Your task to perform on an android device: toggle airplane mode Image 0: 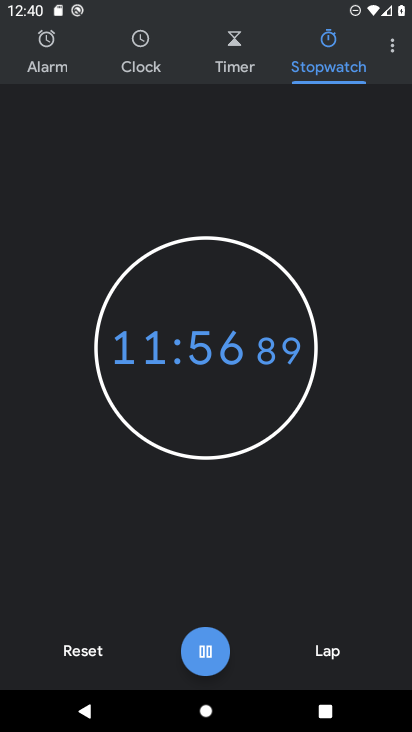
Step 0: press home button
Your task to perform on an android device: toggle airplane mode Image 1: 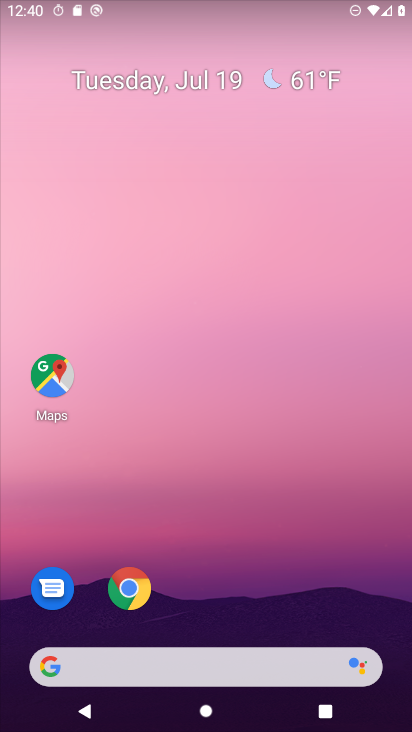
Step 1: drag from (282, 537) to (288, 203)
Your task to perform on an android device: toggle airplane mode Image 2: 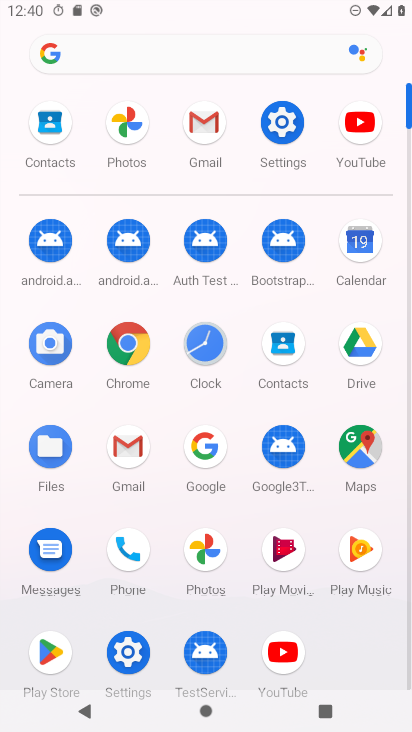
Step 2: click (270, 130)
Your task to perform on an android device: toggle airplane mode Image 3: 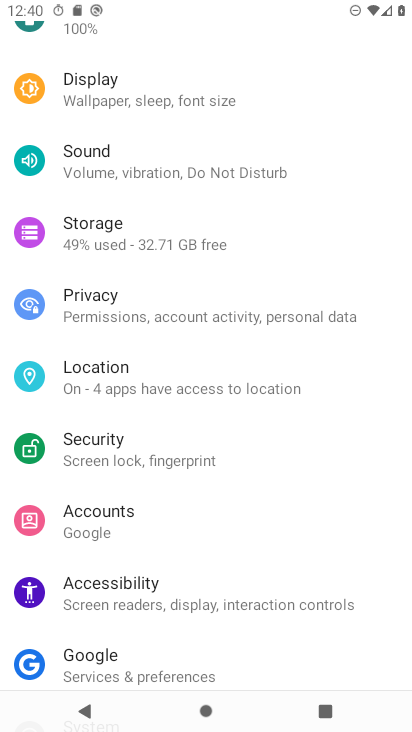
Step 3: drag from (165, 279) to (254, 628)
Your task to perform on an android device: toggle airplane mode Image 4: 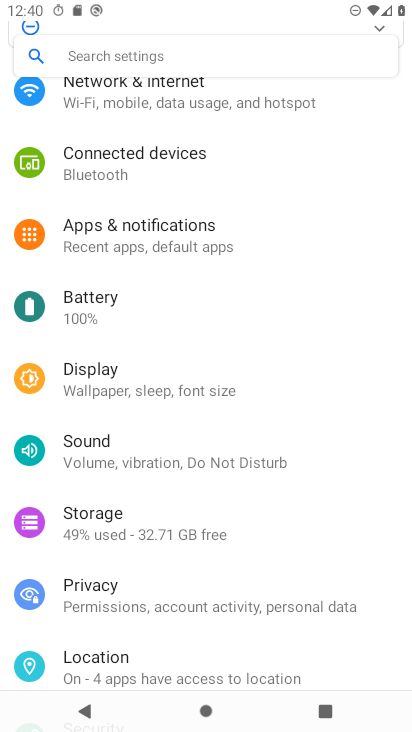
Step 4: click (225, 98)
Your task to perform on an android device: toggle airplane mode Image 5: 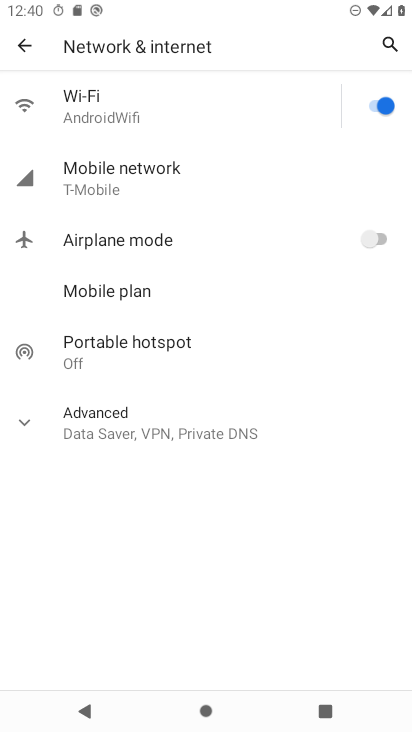
Step 5: click (391, 239)
Your task to perform on an android device: toggle airplane mode Image 6: 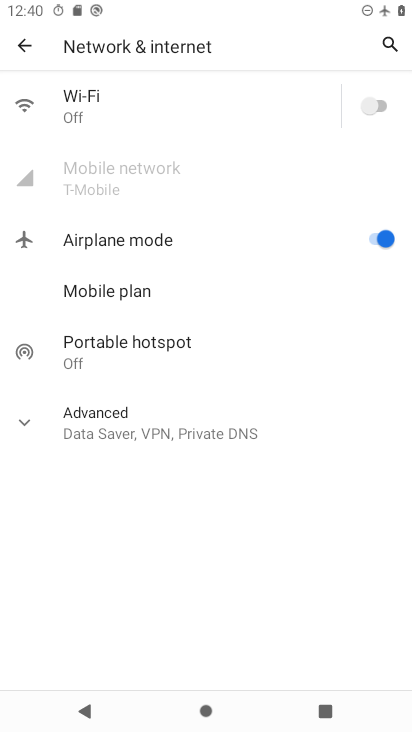
Step 6: task complete